Your task to perform on an android device: When is my next appointment? Image 0: 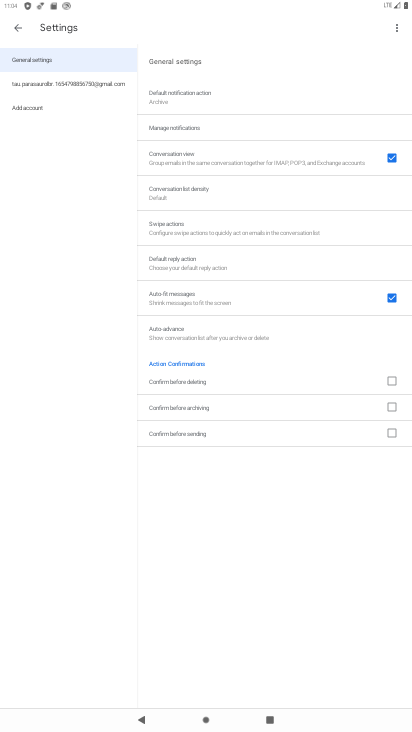
Step 0: press home button
Your task to perform on an android device: When is my next appointment? Image 1: 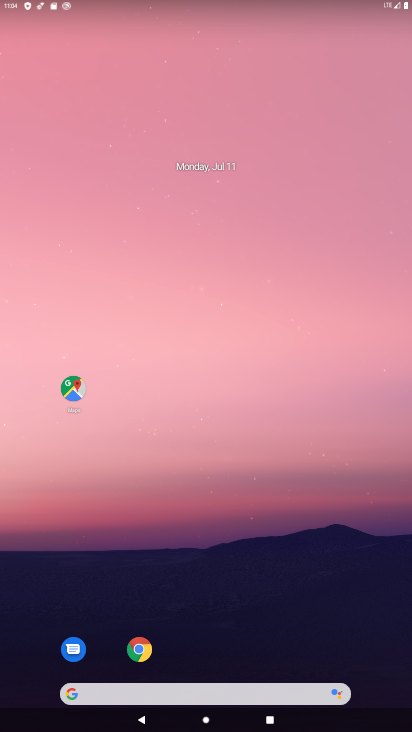
Step 1: drag from (300, 603) to (203, 36)
Your task to perform on an android device: When is my next appointment? Image 2: 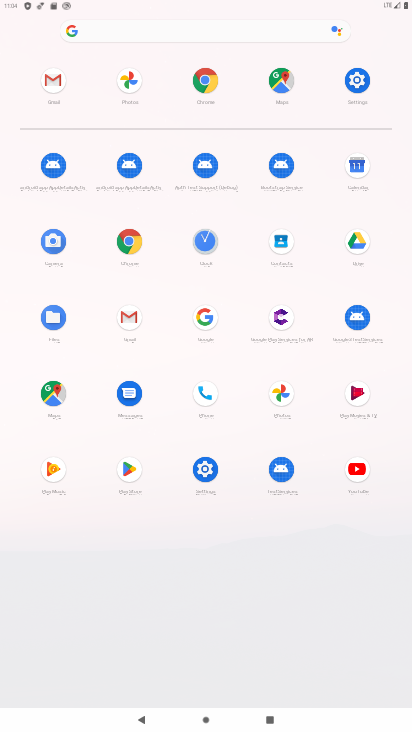
Step 2: click (358, 167)
Your task to perform on an android device: When is my next appointment? Image 3: 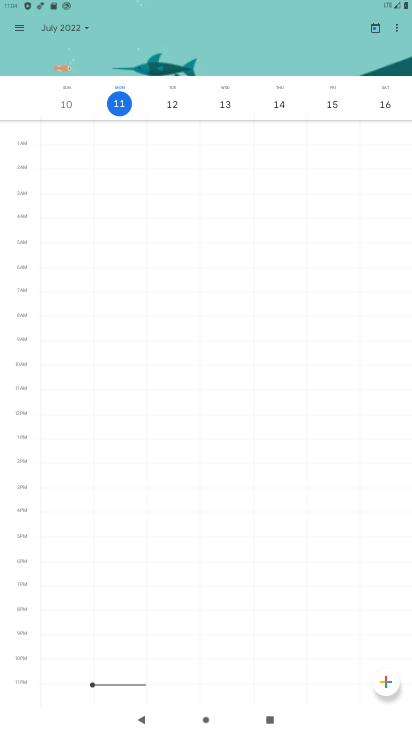
Step 3: click (174, 103)
Your task to perform on an android device: When is my next appointment? Image 4: 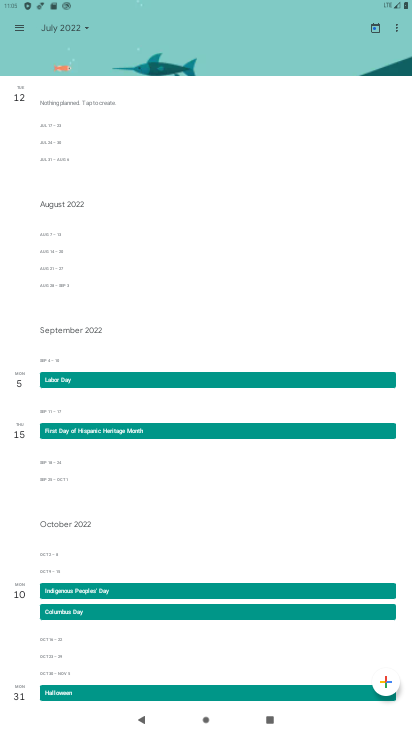
Step 4: task complete